Your task to perform on an android device: Open Amazon Image 0: 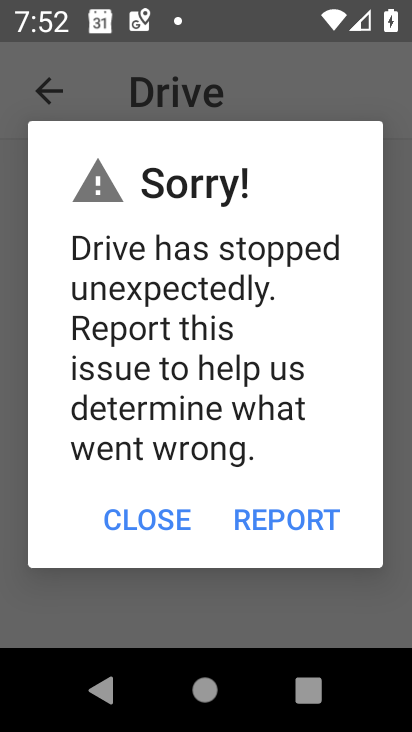
Step 0: press home button
Your task to perform on an android device: Open Amazon Image 1: 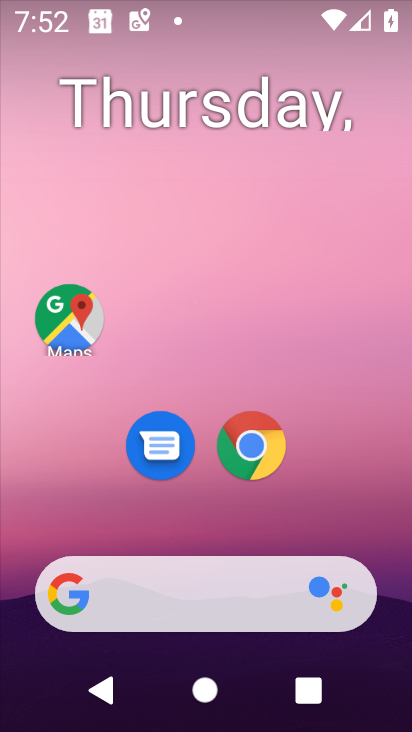
Step 1: click (405, 410)
Your task to perform on an android device: Open Amazon Image 2: 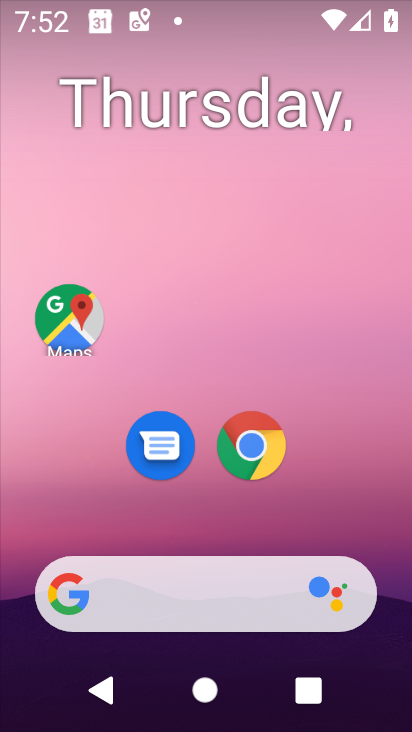
Step 2: drag from (366, 201) to (326, 39)
Your task to perform on an android device: Open Amazon Image 3: 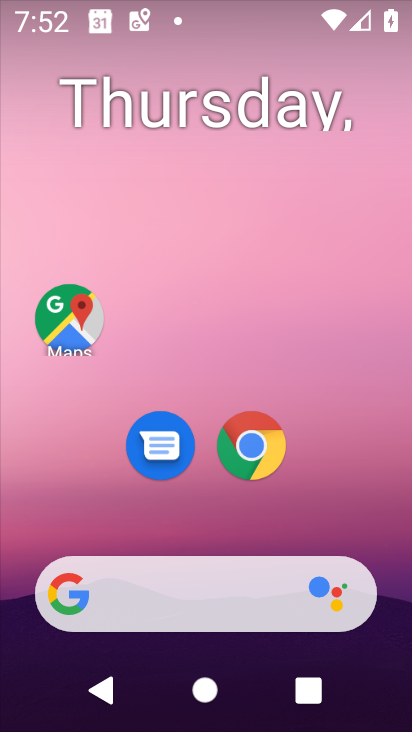
Step 3: drag from (360, 548) to (278, 18)
Your task to perform on an android device: Open Amazon Image 4: 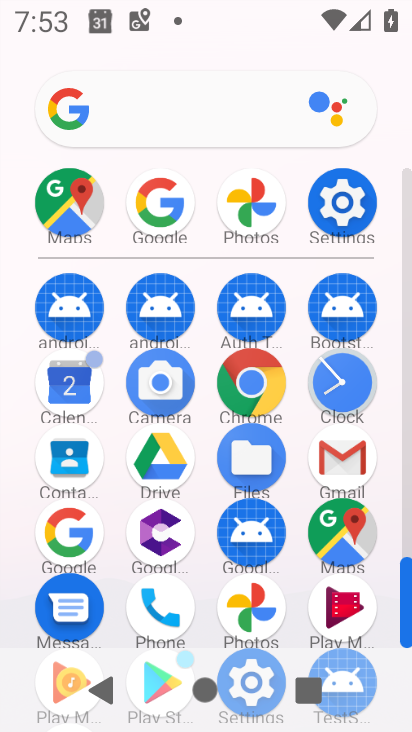
Step 4: click (93, 545)
Your task to perform on an android device: Open Amazon Image 5: 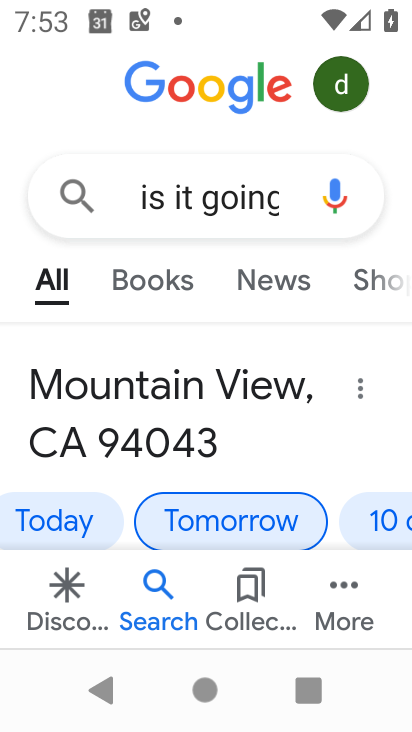
Step 5: press back button
Your task to perform on an android device: Open Amazon Image 6: 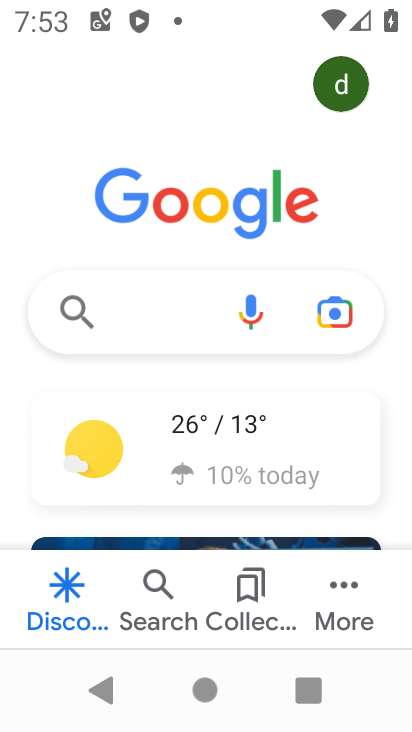
Step 6: click (127, 323)
Your task to perform on an android device: Open Amazon Image 7: 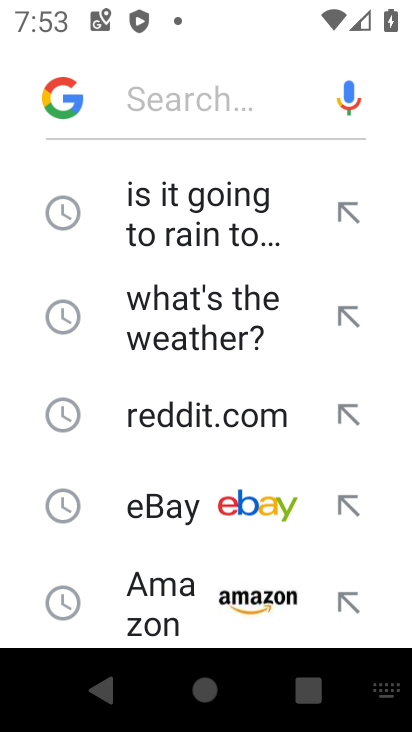
Step 7: click (188, 582)
Your task to perform on an android device: Open Amazon Image 8: 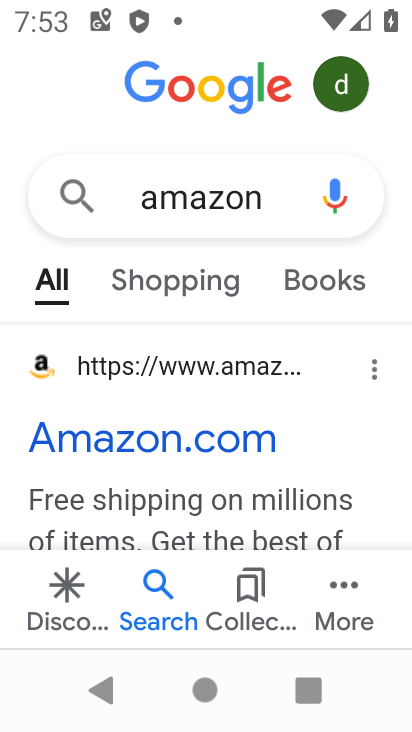
Step 8: task complete